Your task to perform on an android device: toggle show notifications on the lock screen Image 0: 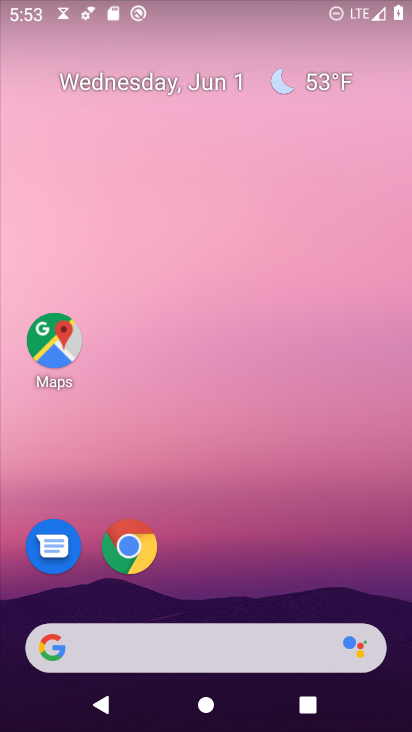
Step 0: drag from (251, 502) to (9, 186)
Your task to perform on an android device: toggle show notifications on the lock screen Image 1: 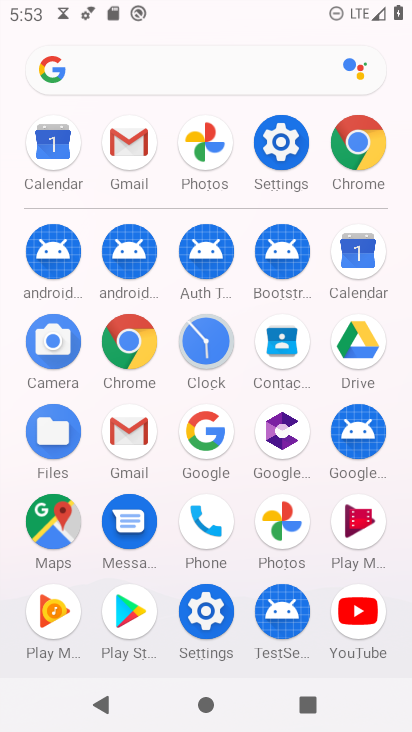
Step 1: drag from (19, 592) to (4, 408)
Your task to perform on an android device: toggle show notifications on the lock screen Image 2: 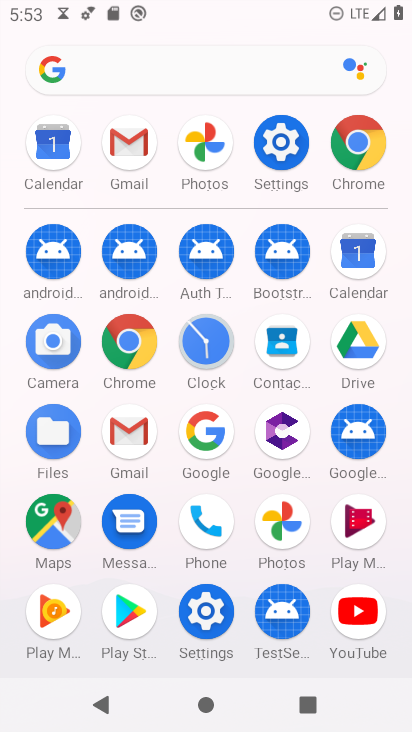
Step 2: click (207, 609)
Your task to perform on an android device: toggle show notifications on the lock screen Image 3: 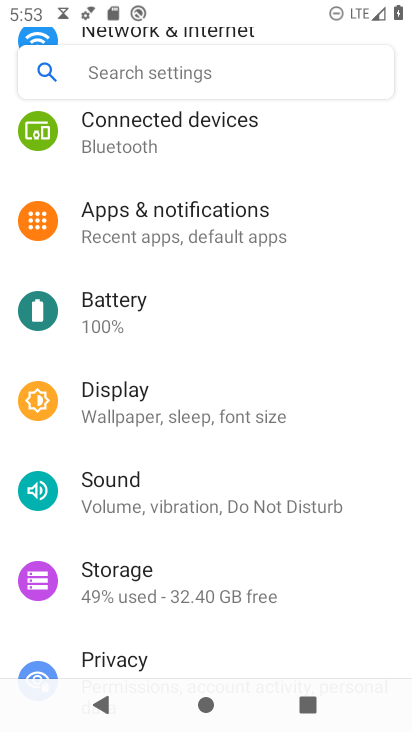
Step 3: click (158, 232)
Your task to perform on an android device: toggle show notifications on the lock screen Image 4: 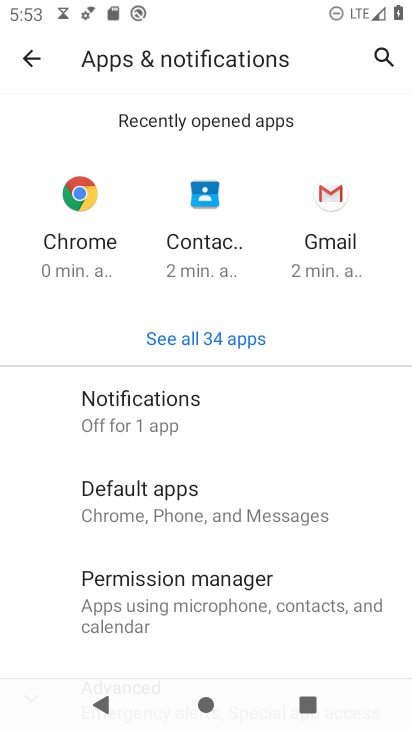
Step 4: drag from (290, 580) to (300, 241)
Your task to perform on an android device: toggle show notifications on the lock screen Image 5: 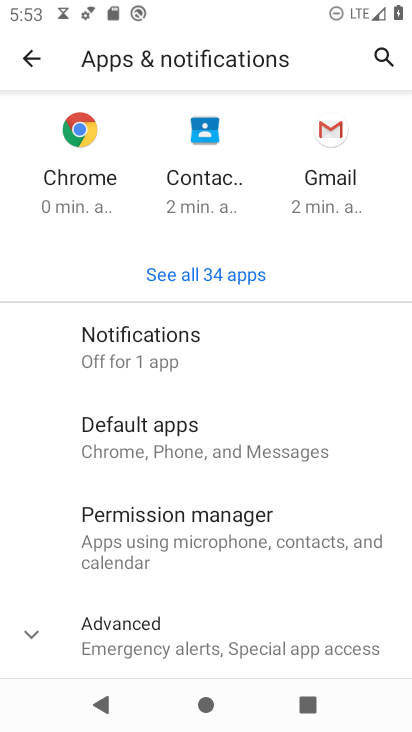
Step 5: click (38, 663)
Your task to perform on an android device: toggle show notifications on the lock screen Image 6: 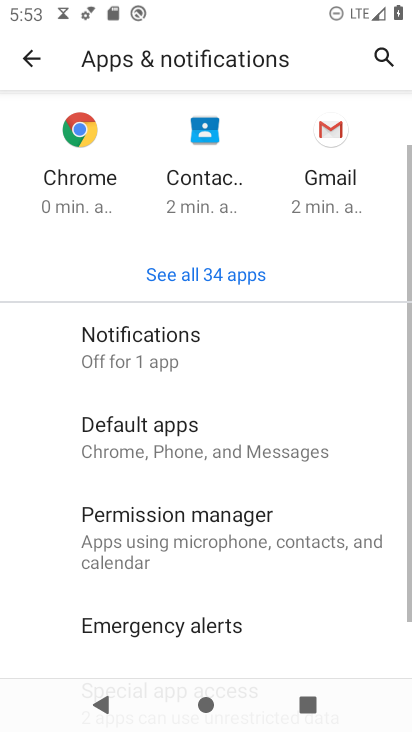
Step 6: drag from (353, 577) to (317, 226)
Your task to perform on an android device: toggle show notifications on the lock screen Image 7: 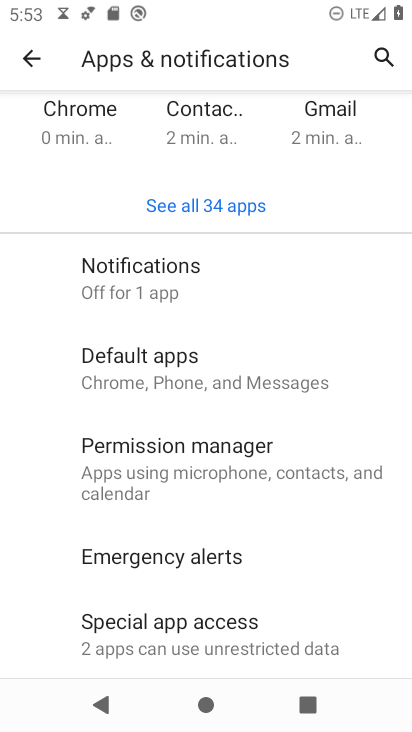
Step 7: click (186, 280)
Your task to perform on an android device: toggle show notifications on the lock screen Image 8: 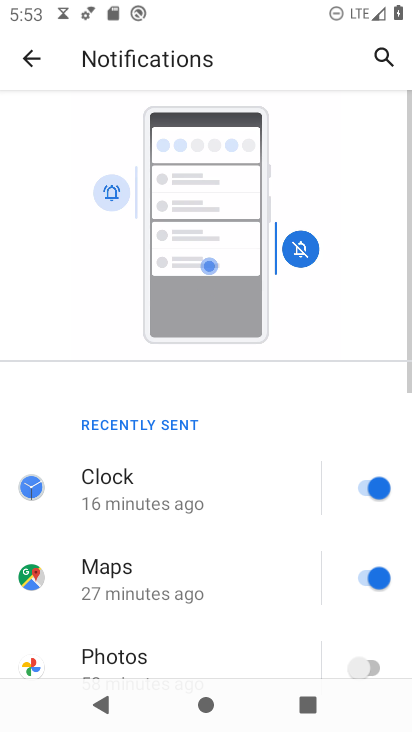
Step 8: drag from (187, 612) to (214, 180)
Your task to perform on an android device: toggle show notifications on the lock screen Image 9: 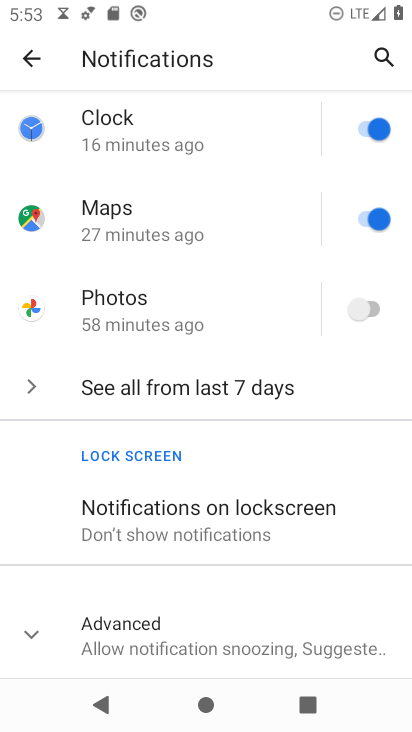
Step 9: click (204, 515)
Your task to perform on an android device: toggle show notifications on the lock screen Image 10: 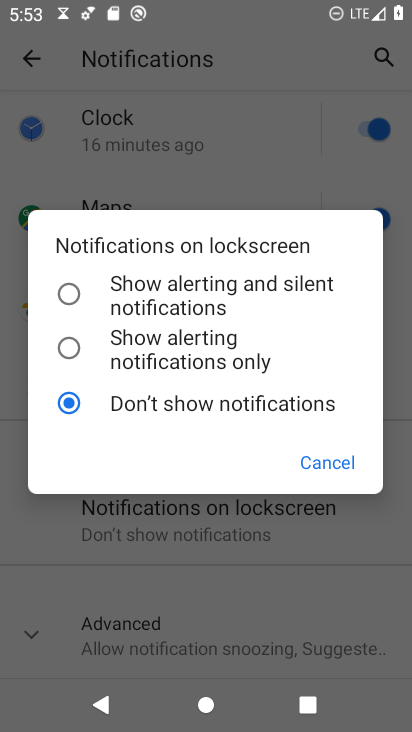
Step 10: click (246, 298)
Your task to perform on an android device: toggle show notifications on the lock screen Image 11: 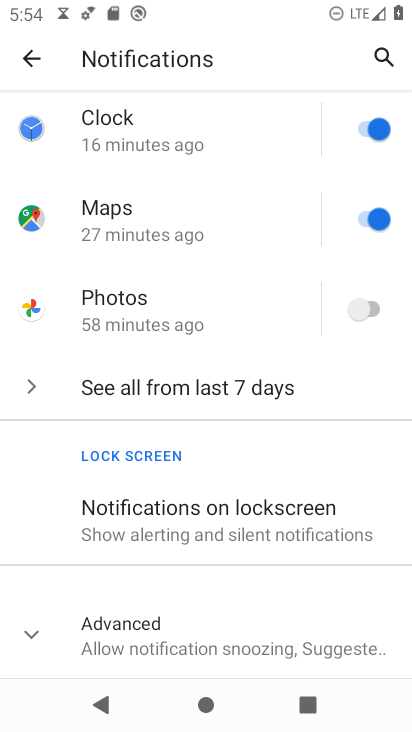
Step 11: task complete